Your task to perform on an android device: change the clock display to digital Image 0: 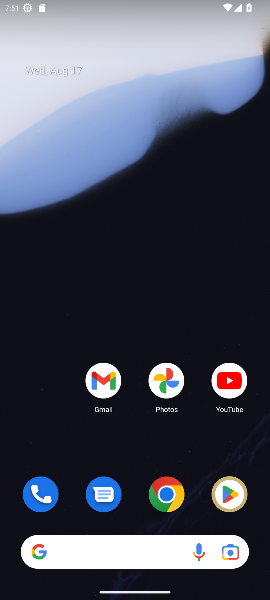
Step 0: drag from (69, 527) to (110, 20)
Your task to perform on an android device: change the clock display to digital Image 1: 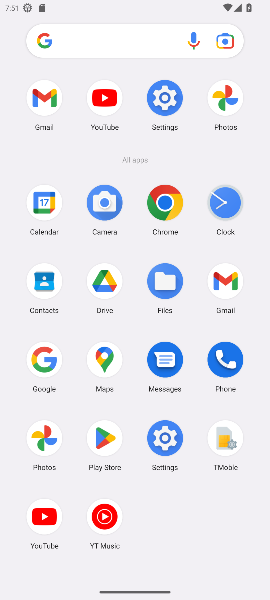
Step 1: click (221, 209)
Your task to perform on an android device: change the clock display to digital Image 2: 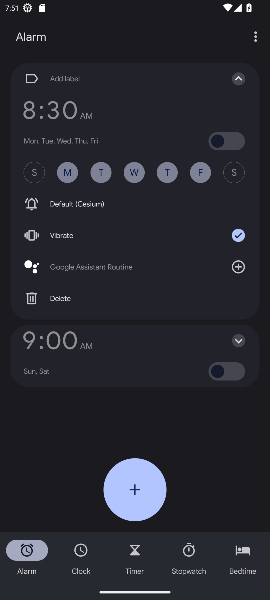
Step 2: click (185, 53)
Your task to perform on an android device: change the clock display to digital Image 3: 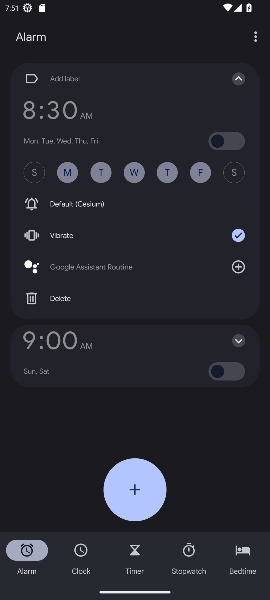
Step 3: click (256, 44)
Your task to perform on an android device: change the clock display to digital Image 4: 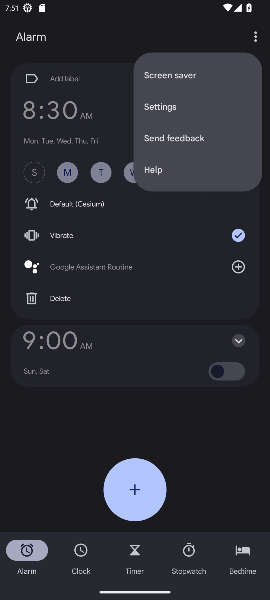
Step 4: click (144, 105)
Your task to perform on an android device: change the clock display to digital Image 5: 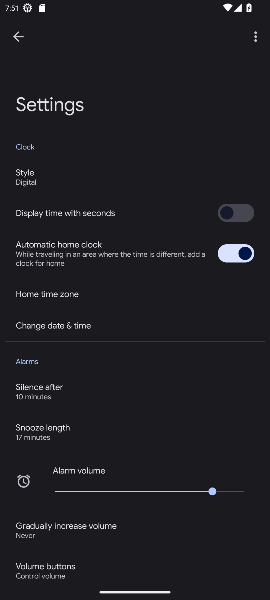
Step 5: click (31, 179)
Your task to perform on an android device: change the clock display to digital Image 6: 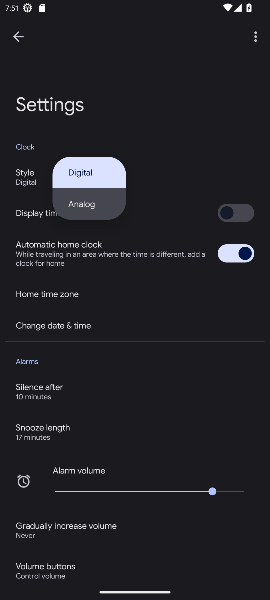
Step 6: task complete